Your task to perform on an android device: turn on the 24-hour format for clock Image 0: 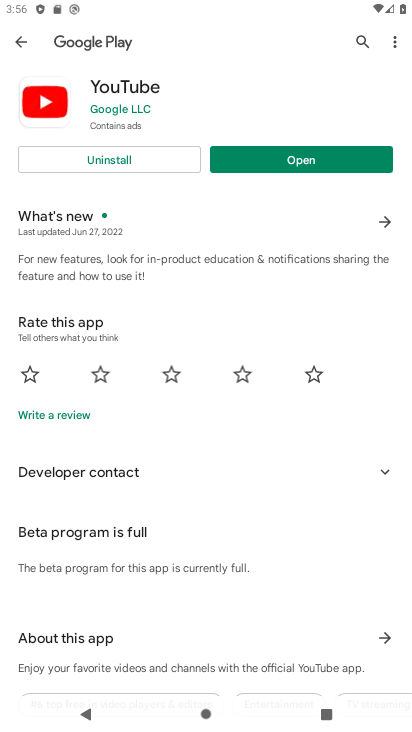
Step 0: press home button
Your task to perform on an android device: turn on the 24-hour format for clock Image 1: 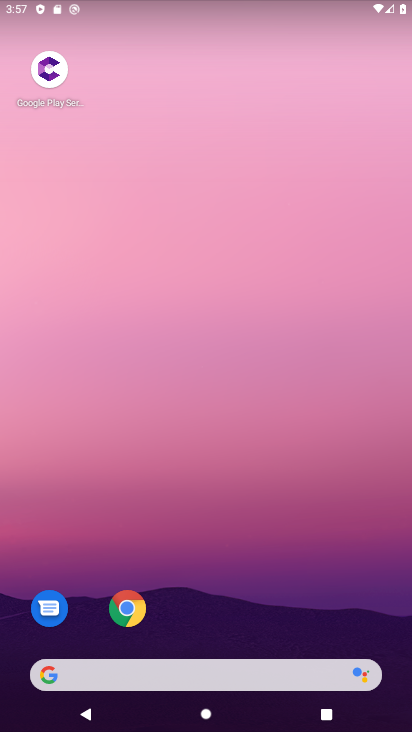
Step 1: drag from (160, 634) to (285, 124)
Your task to perform on an android device: turn on the 24-hour format for clock Image 2: 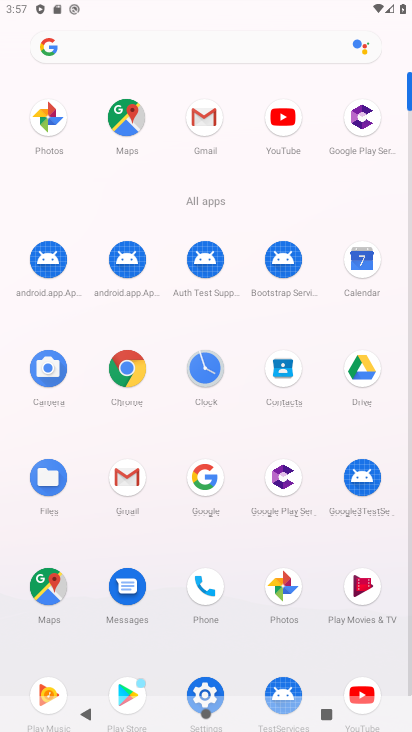
Step 2: click (199, 374)
Your task to perform on an android device: turn on the 24-hour format for clock Image 3: 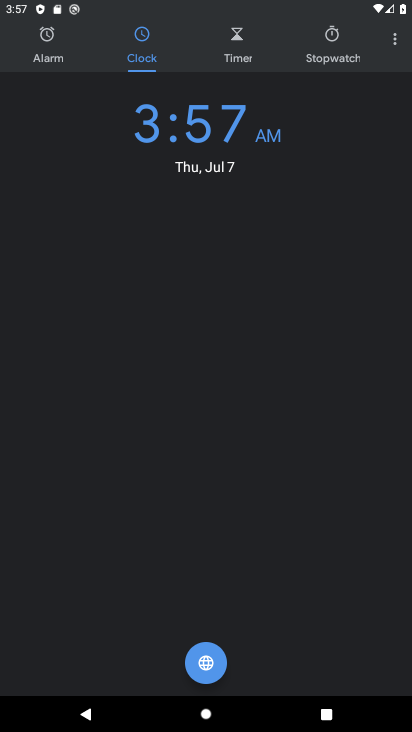
Step 3: click (384, 30)
Your task to perform on an android device: turn on the 24-hour format for clock Image 4: 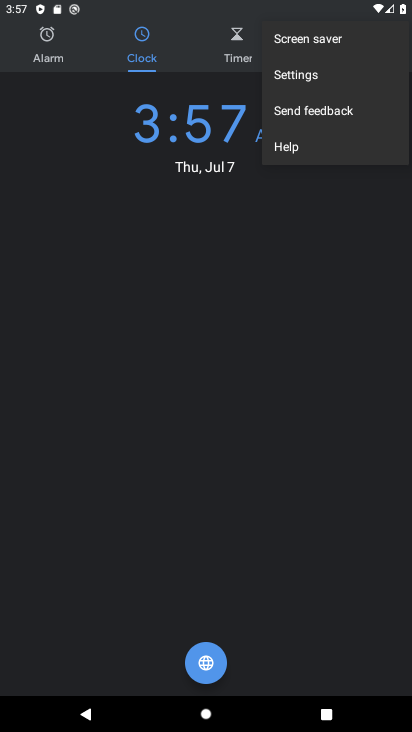
Step 4: click (348, 83)
Your task to perform on an android device: turn on the 24-hour format for clock Image 5: 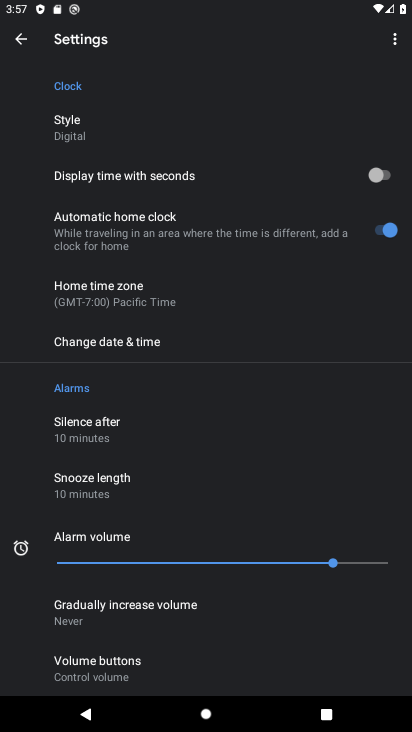
Step 5: click (151, 344)
Your task to perform on an android device: turn on the 24-hour format for clock Image 6: 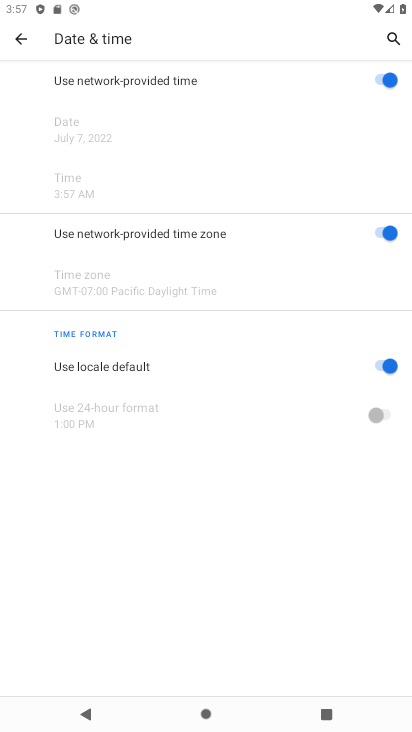
Step 6: click (382, 360)
Your task to perform on an android device: turn on the 24-hour format for clock Image 7: 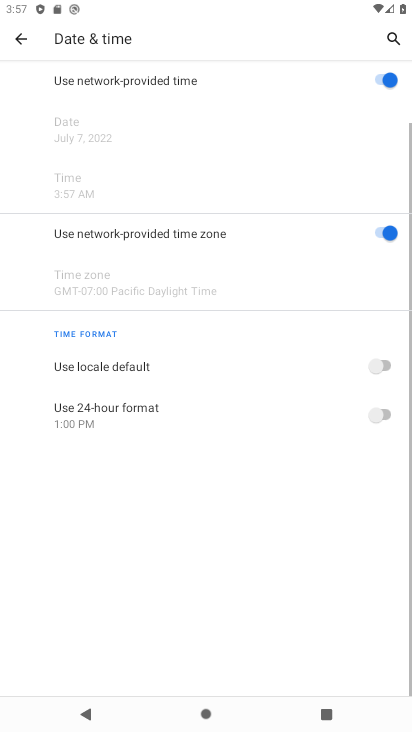
Step 7: click (389, 410)
Your task to perform on an android device: turn on the 24-hour format for clock Image 8: 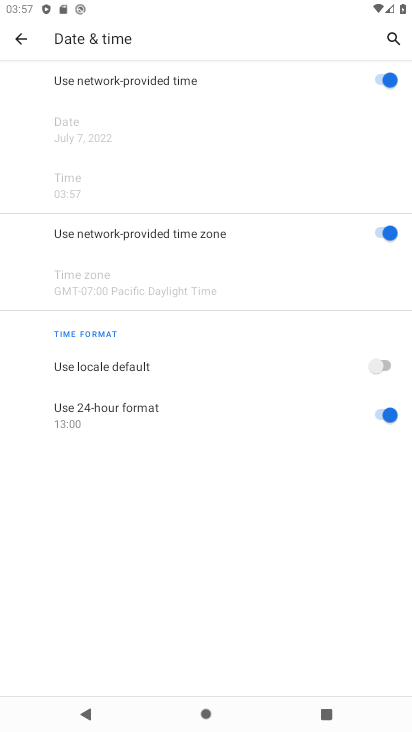
Step 8: task complete